Your task to perform on an android device: Open CNN.com Image 0: 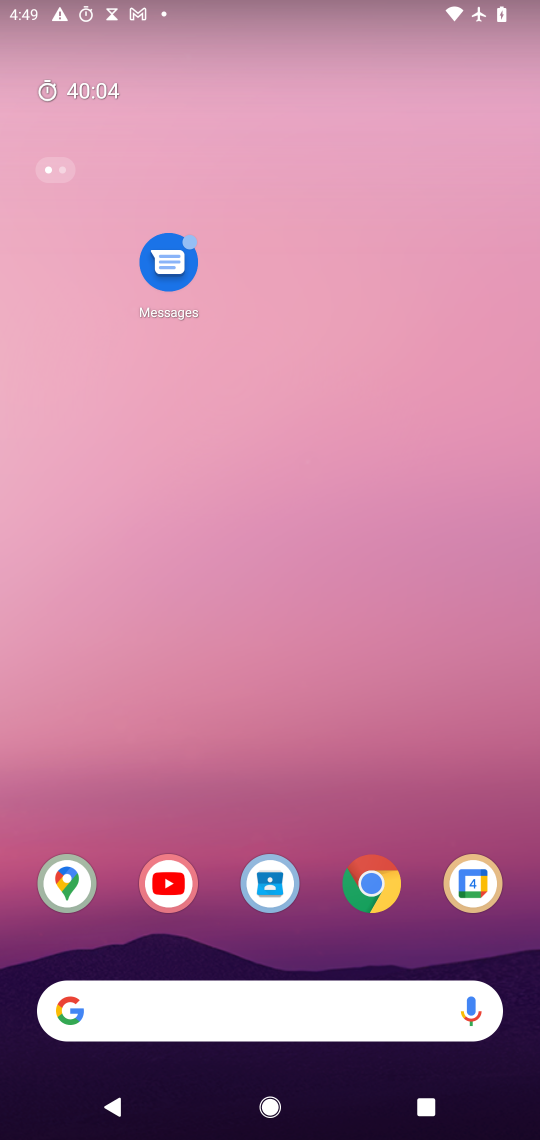
Step 0: click (375, 884)
Your task to perform on an android device: Open CNN.com Image 1: 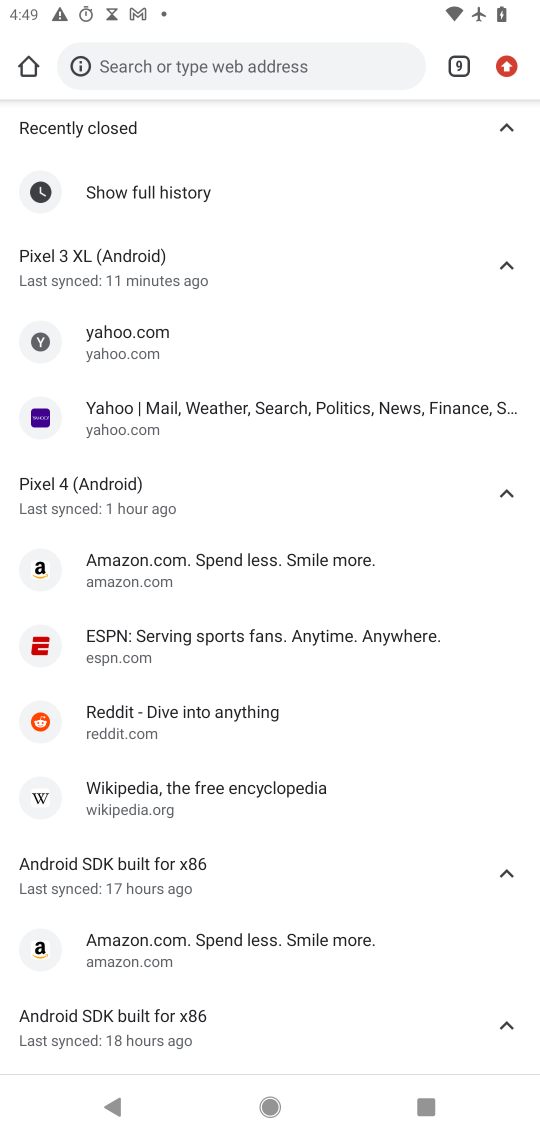
Step 1: click (515, 60)
Your task to perform on an android device: Open CNN.com Image 2: 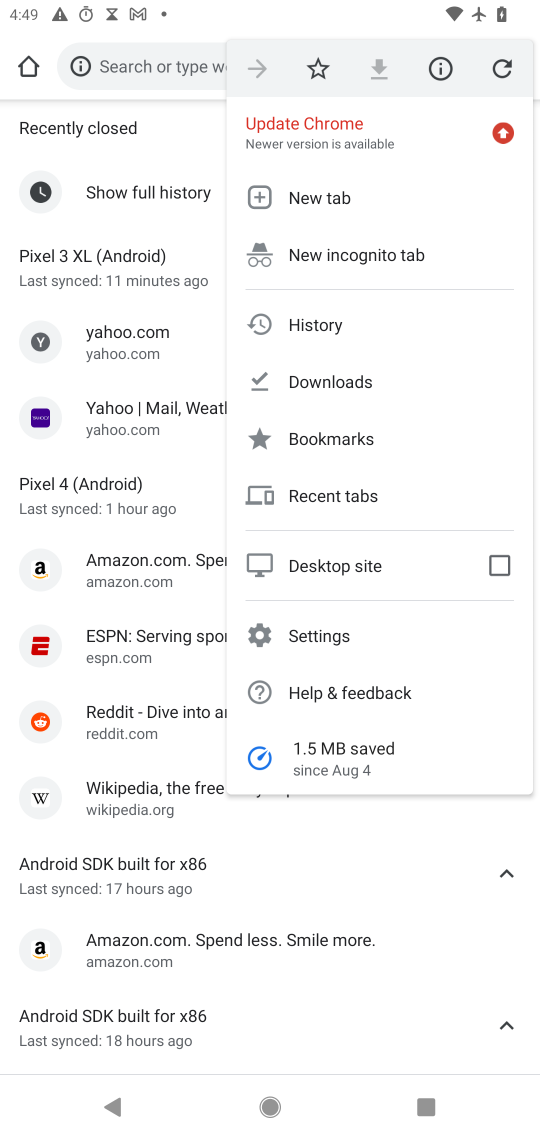
Step 2: click (316, 195)
Your task to perform on an android device: Open CNN.com Image 3: 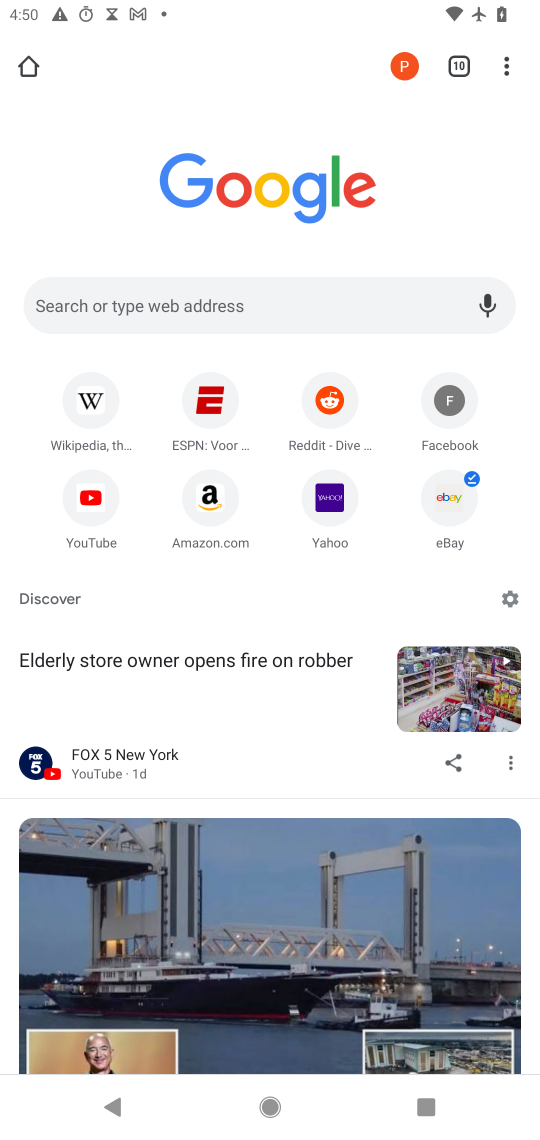
Step 3: click (242, 307)
Your task to perform on an android device: Open CNN.com Image 4: 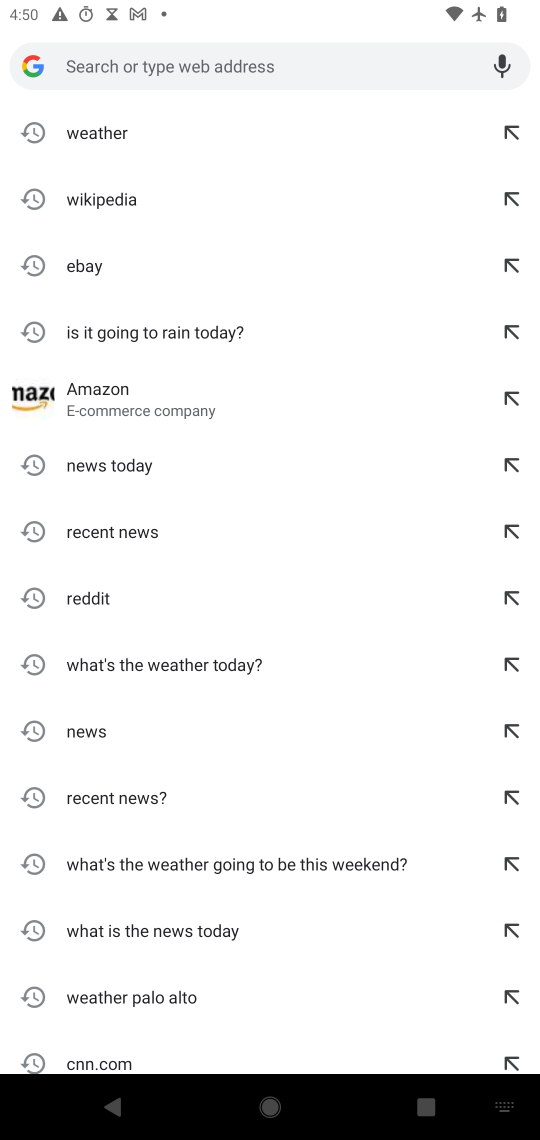
Step 4: type "CNN.com"
Your task to perform on an android device: Open CNN.com Image 5: 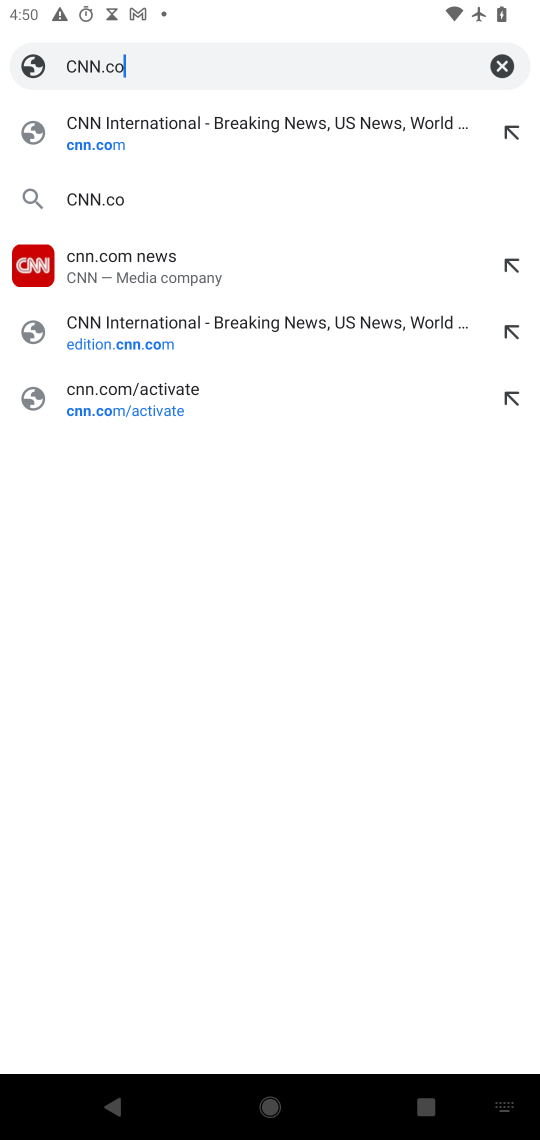
Step 5: type ""
Your task to perform on an android device: Open CNN.com Image 6: 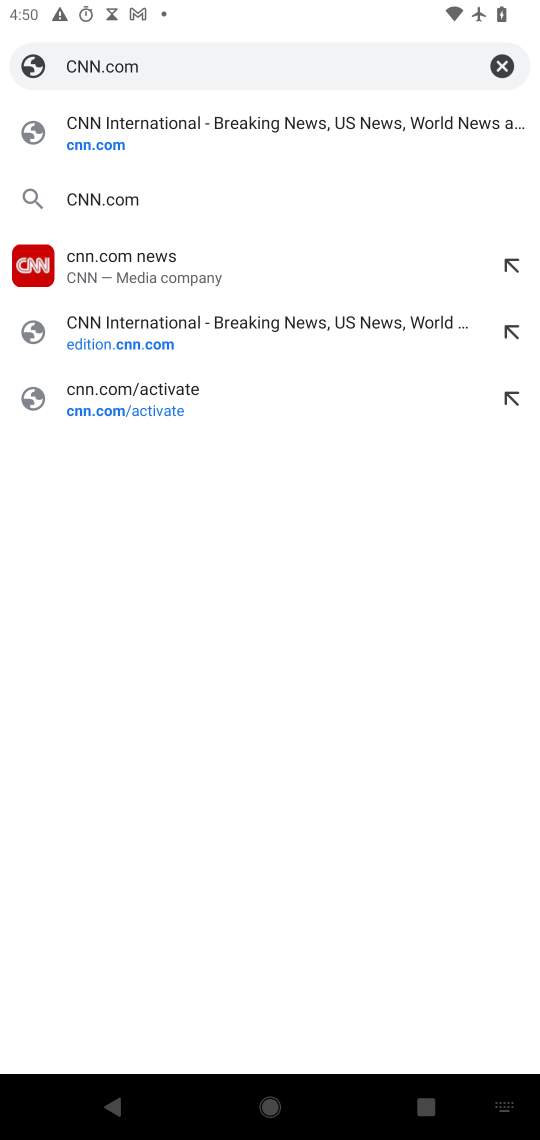
Step 6: click (124, 256)
Your task to perform on an android device: Open CNN.com Image 7: 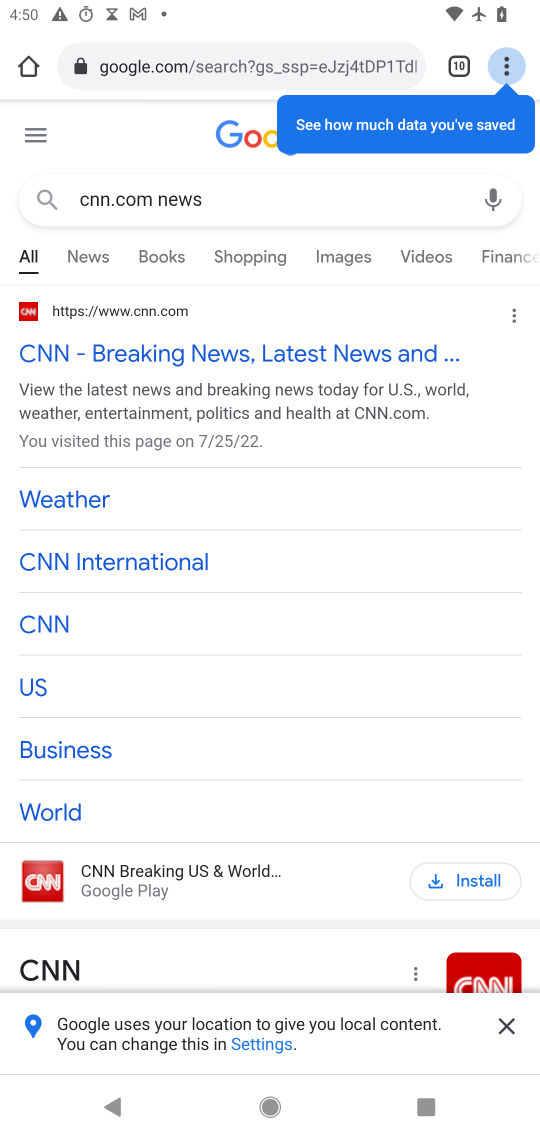
Step 7: click (124, 357)
Your task to perform on an android device: Open CNN.com Image 8: 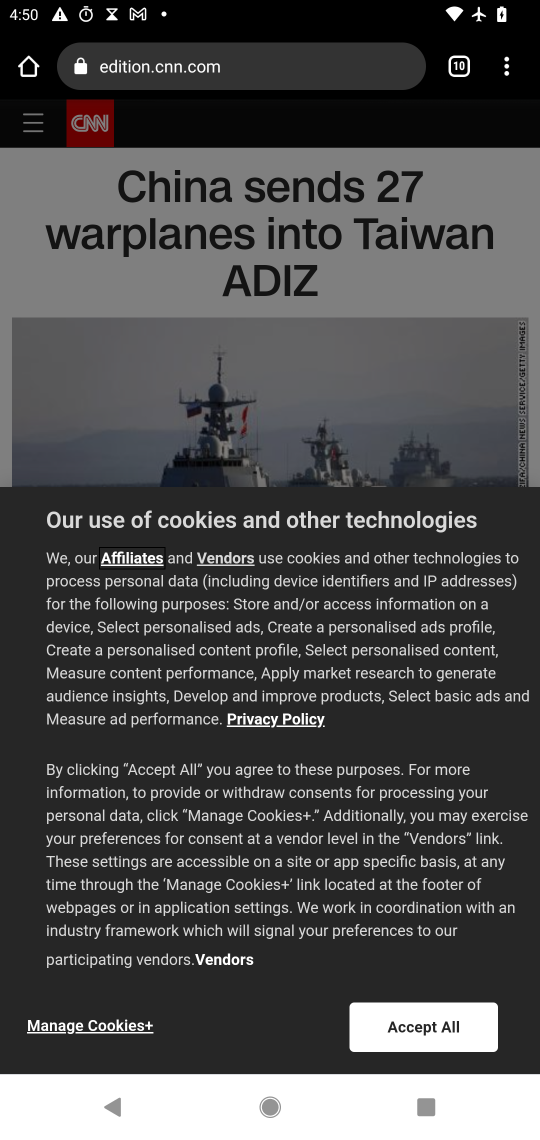
Step 8: task complete